Your task to perform on an android device: Show me popular games on the Play Store Image 0: 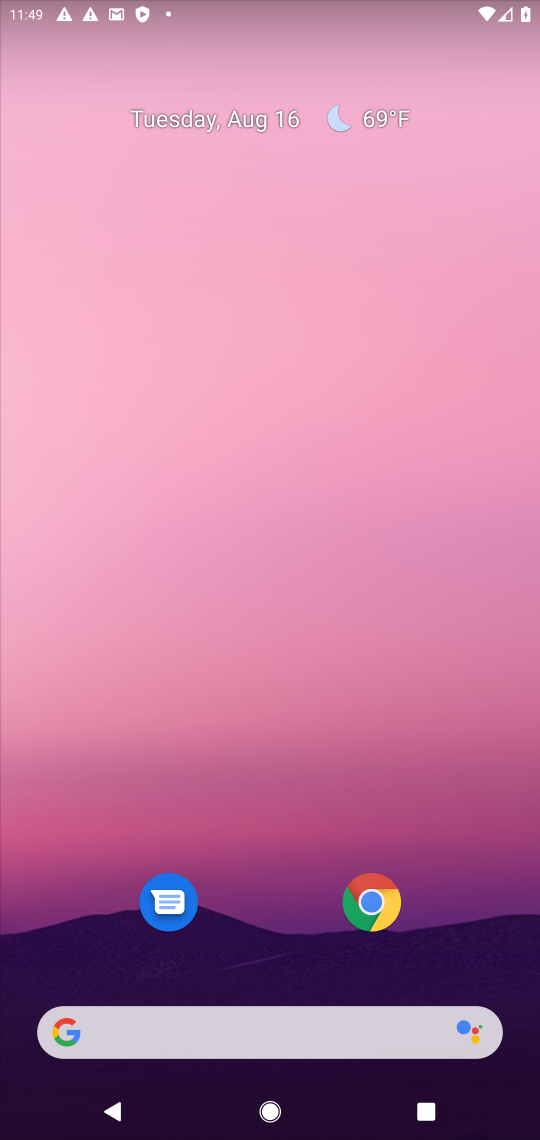
Step 0: drag from (239, 996) to (307, 182)
Your task to perform on an android device: Show me popular games on the Play Store Image 1: 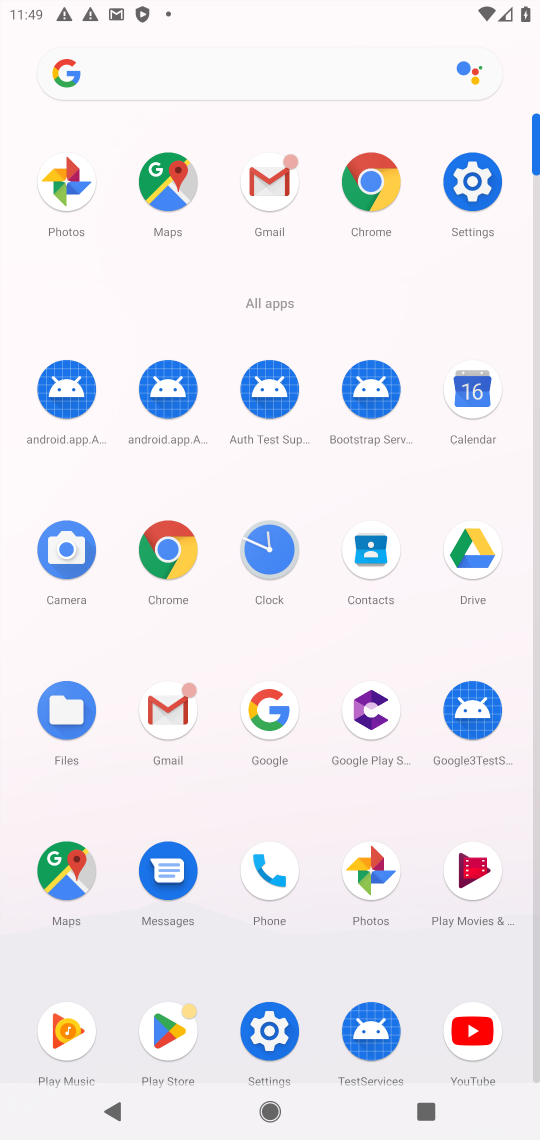
Step 1: click (159, 1035)
Your task to perform on an android device: Show me popular games on the Play Store Image 2: 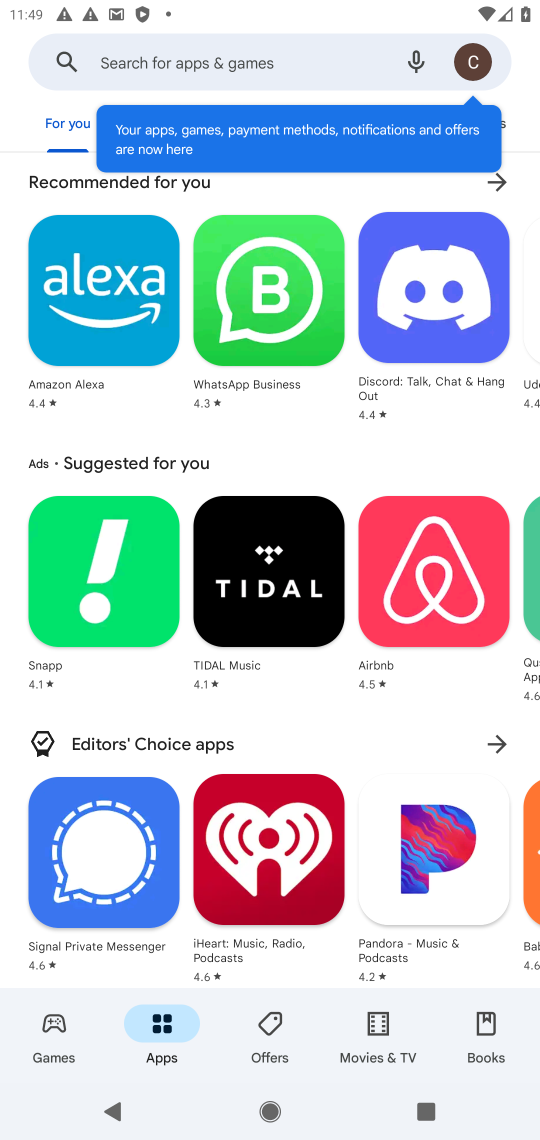
Step 2: drag from (64, 116) to (8, 140)
Your task to perform on an android device: Show me popular games on the Play Store Image 3: 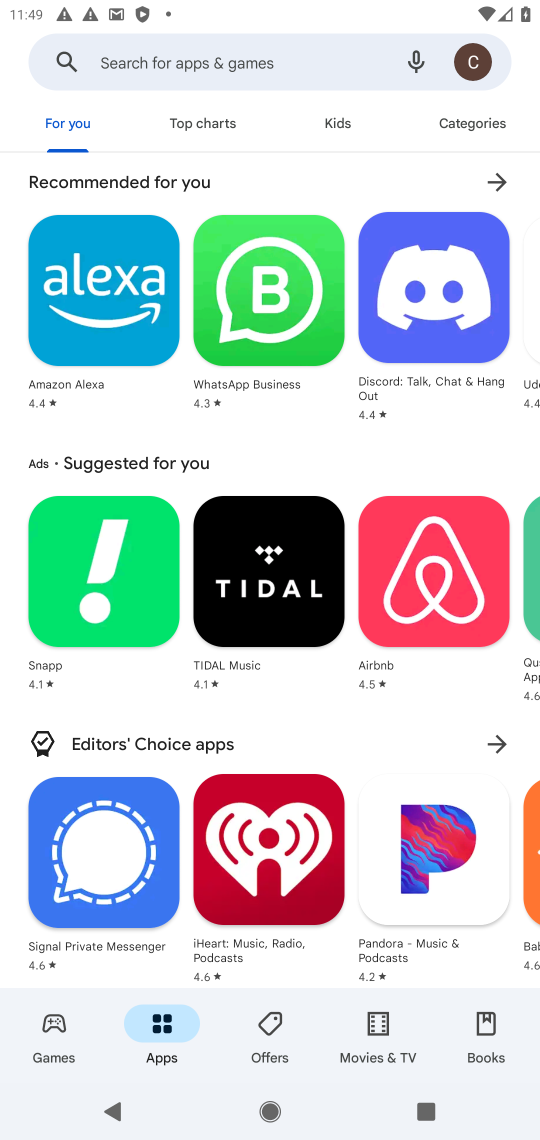
Step 3: click (234, 132)
Your task to perform on an android device: Show me popular games on the Play Store Image 4: 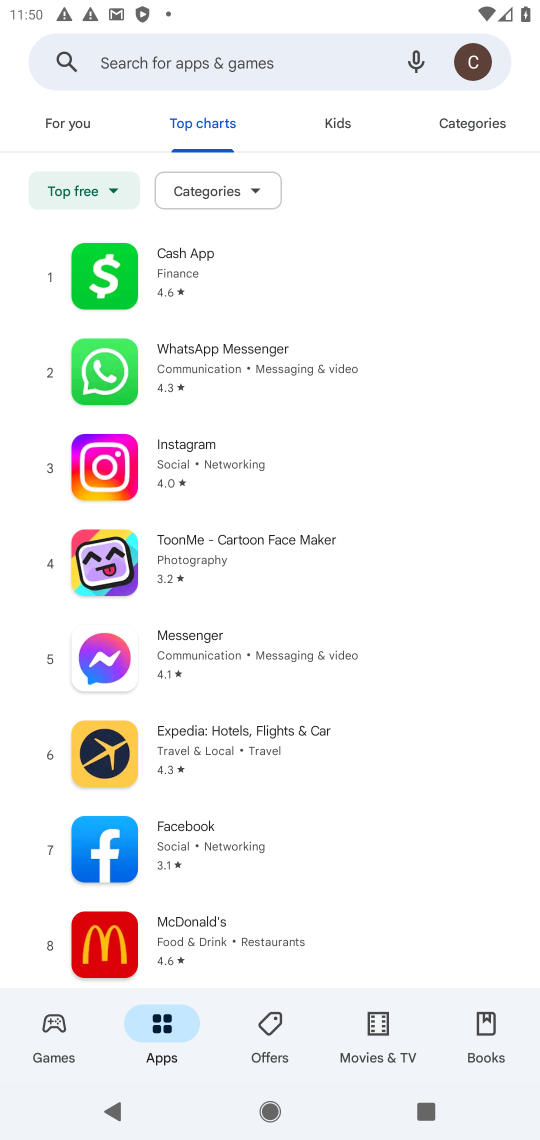
Step 4: task complete